Your task to perform on an android device: see tabs open on other devices in the chrome app Image 0: 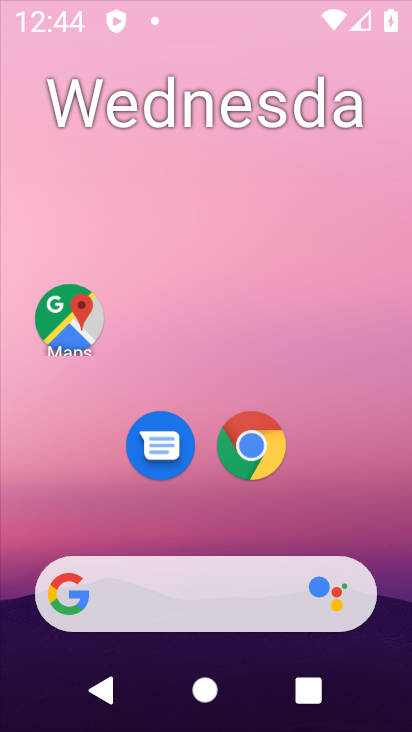
Step 0: drag from (257, 134) to (257, 36)
Your task to perform on an android device: see tabs open on other devices in the chrome app Image 1: 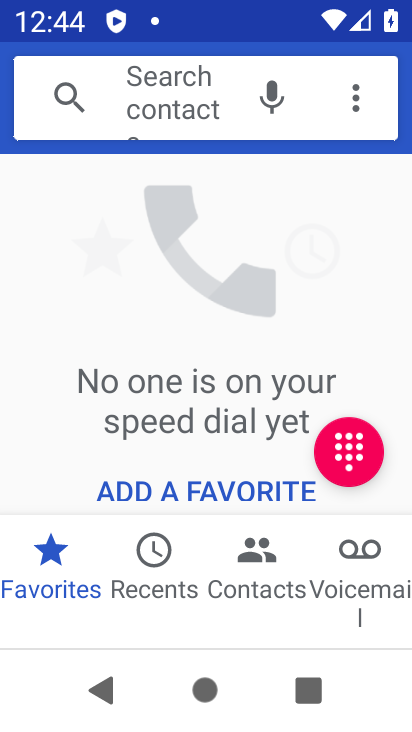
Step 1: press home button
Your task to perform on an android device: see tabs open on other devices in the chrome app Image 2: 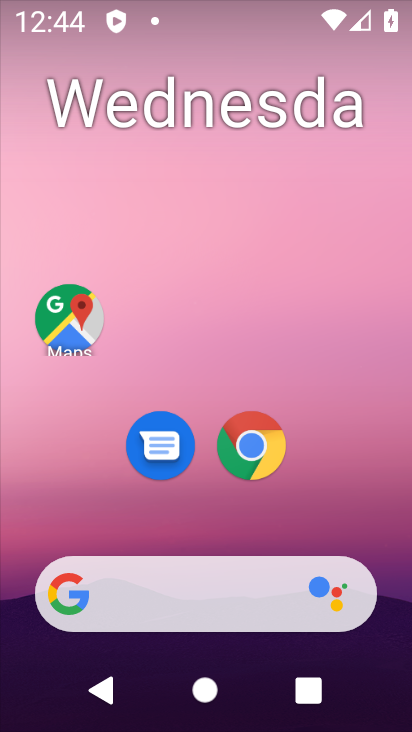
Step 2: drag from (327, 518) to (309, 40)
Your task to perform on an android device: see tabs open on other devices in the chrome app Image 3: 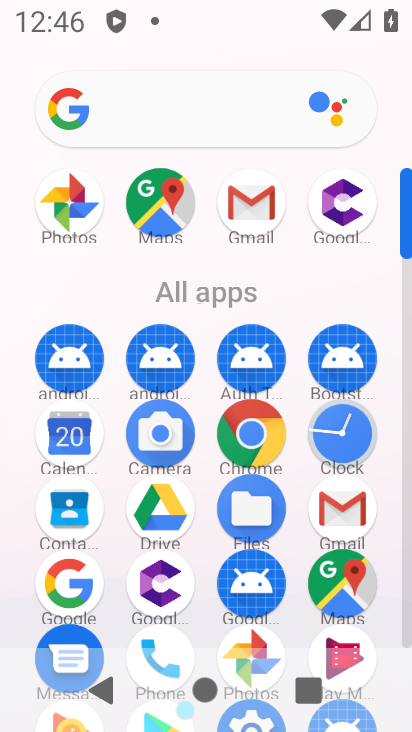
Step 3: click (251, 449)
Your task to perform on an android device: see tabs open on other devices in the chrome app Image 4: 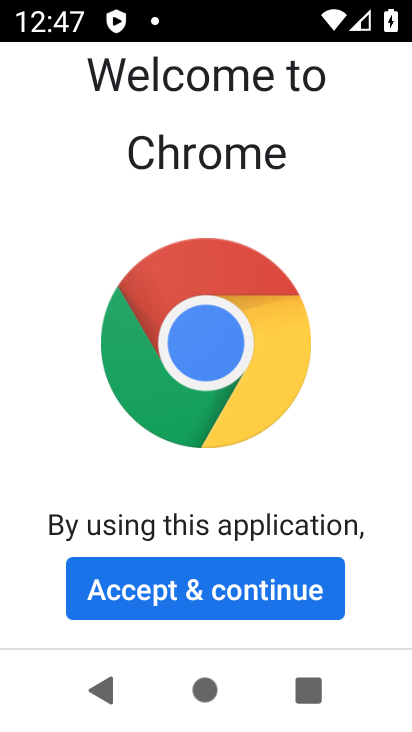
Step 4: click (192, 603)
Your task to perform on an android device: see tabs open on other devices in the chrome app Image 5: 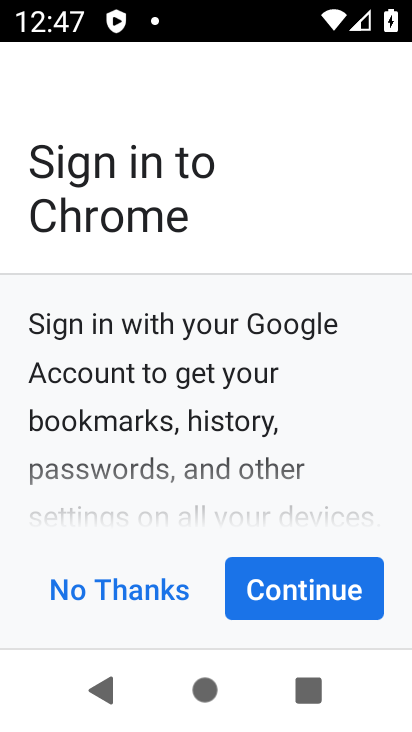
Step 5: click (305, 585)
Your task to perform on an android device: see tabs open on other devices in the chrome app Image 6: 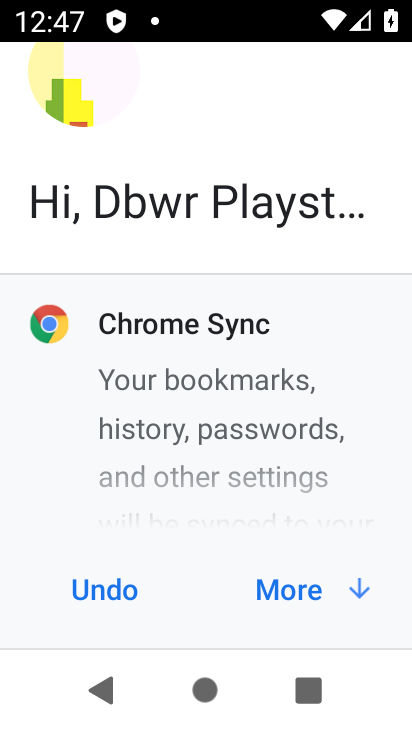
Step 6: click (305, 585)
Your task to perform on an android device: see tabs open on other devices in the chrome app Image 7: 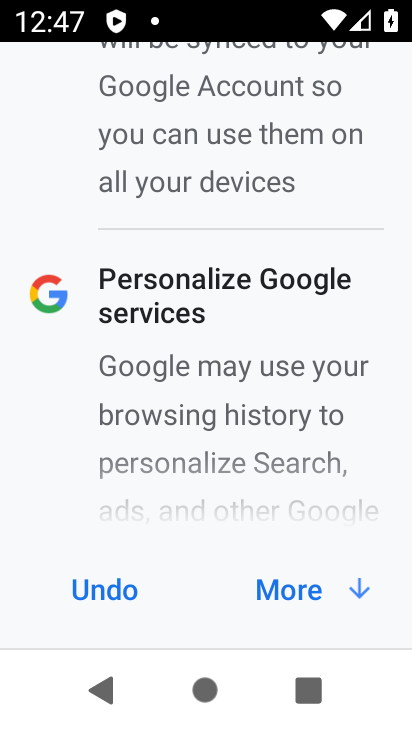
Step 7: click (304, 584)
Your task to perform on an android device: see tabs open on other devices in the chrome app Image 8: 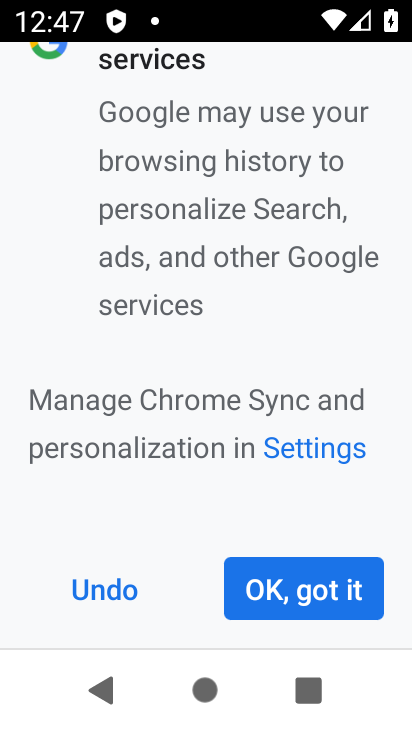
Step 8: drag from (311, 611) to (307, 653)
Your task to perform on an android device: see tabs open on other devices in the chrome app Image 9: 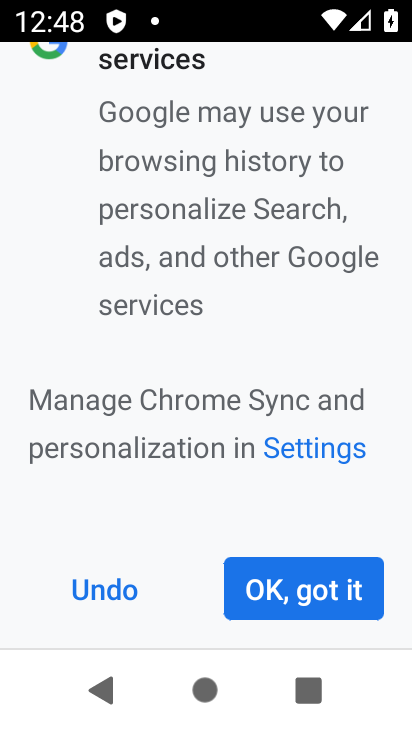
Step 9: click (305, 555)
Your task to perform on an android device: see tabs open on other devices in the chrome app Image 10: 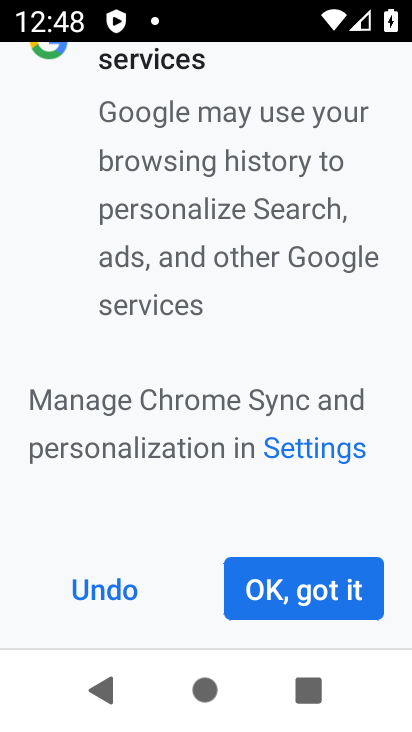
Step 10: click (300, 580)
Your task to perform on an android device: see tabs open on other devices in the chrome app Image 11: 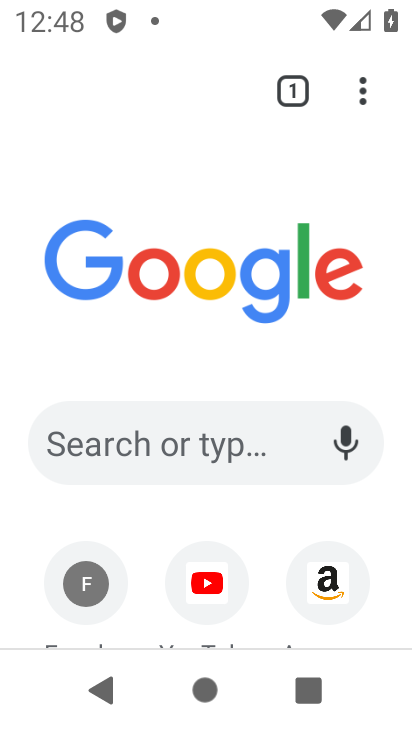
Step 11: task complete